Your task to perform on an android device: change the clock display to digital Image 0: 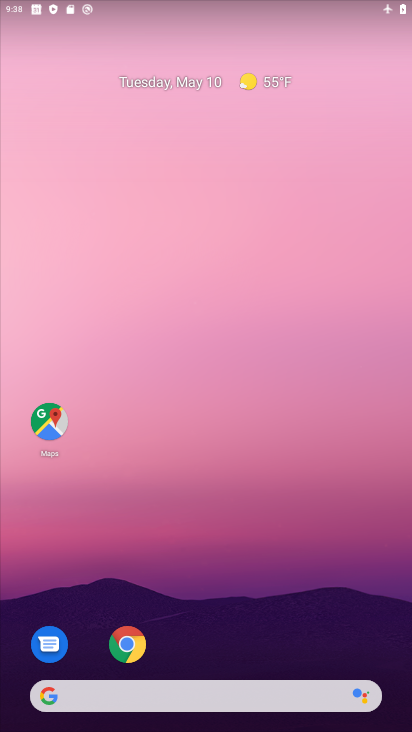
Step 0: drag from (244, 572) to (264, 165)
Your task to perform on an android device: change the clock display to digital Image 1: 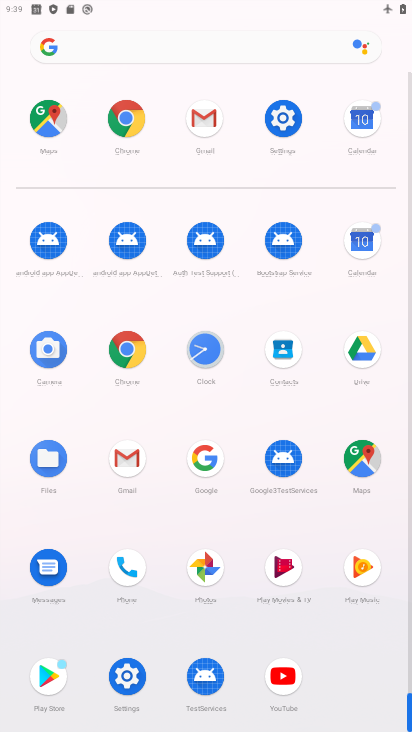
Step 1: click (213, 356)
Your task to perform on an android device: change the clock display to digital Image 2: 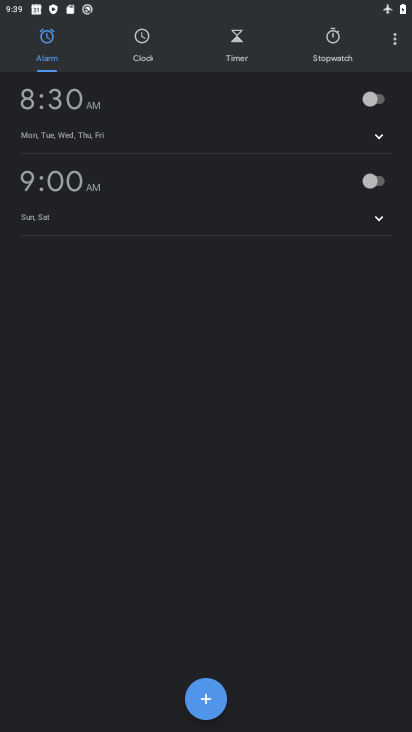
Step 2: click (405, 34)
Your task to perform on an android device: change the clock display to digital Image 3: 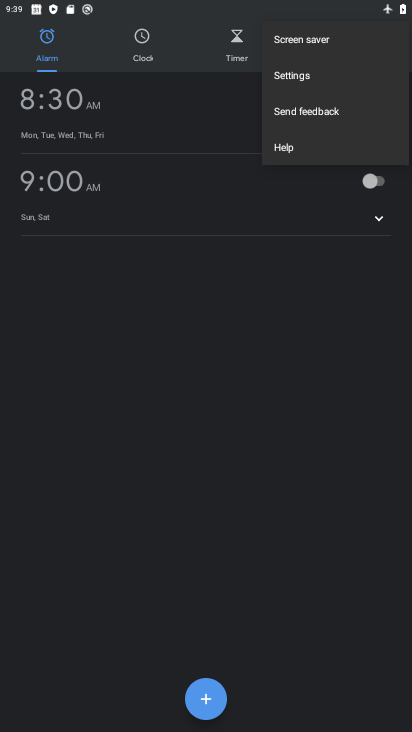
Step 3: click (285, 83)
Your task to perform on an android device: change the clock display to digital Image 4: 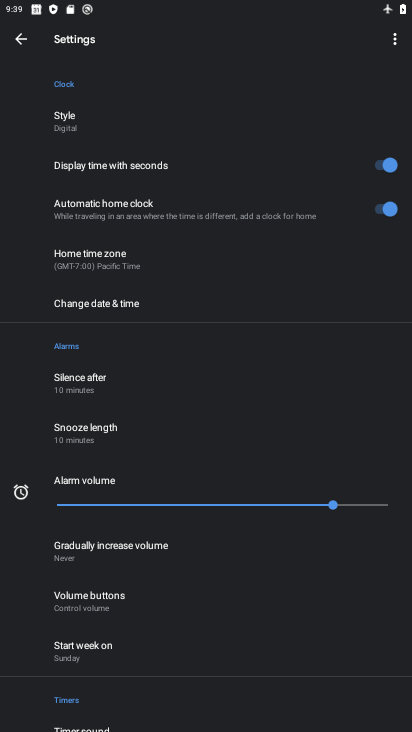
Step 4: click (80, 123)
Your task to perform on an android device: change the clock display to digital Image 5: 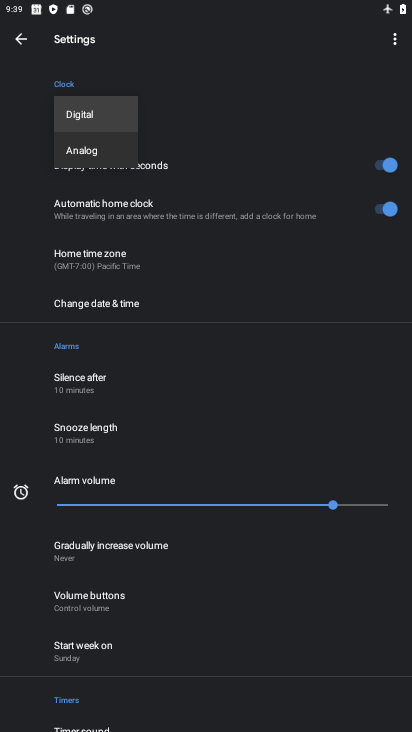
Step 5: task complete